Your task to perform on an android device: What's the weather today? Image 0: 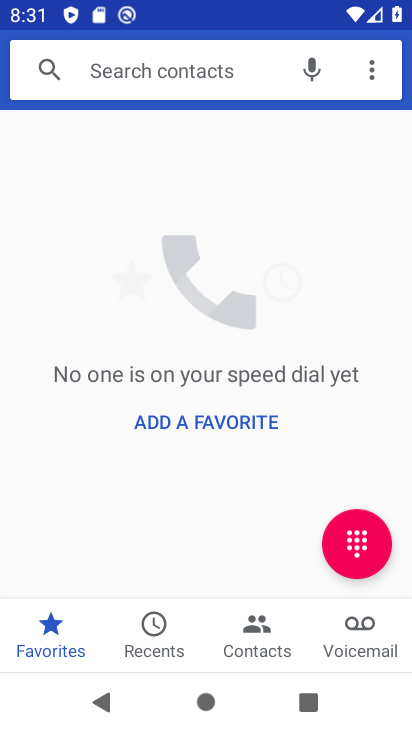
Step 0: press home button
Your task to perform on an android device: What's the weather today? Image 1: 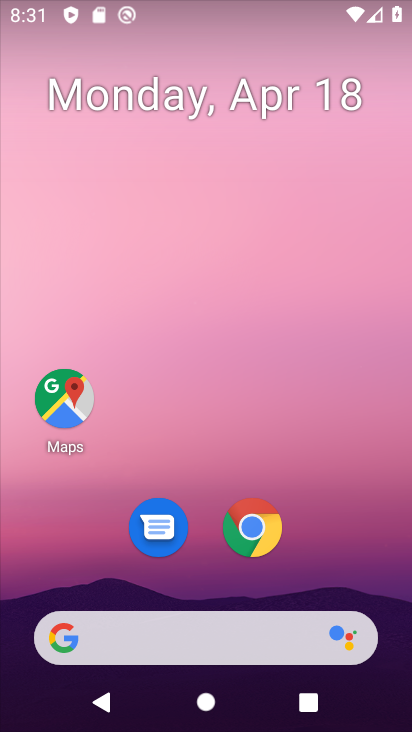
Step 1: click (213, 643)
Your task to perform on an android device: What's the weather today? Image 2: 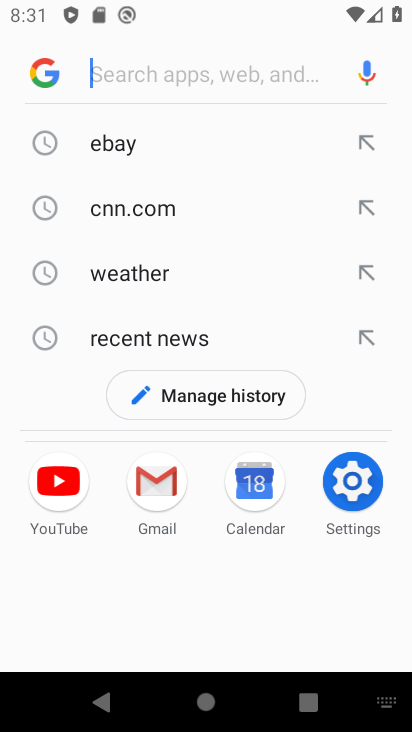
Step 2: type "weather today"
Your task to perform on an android device: What's the weather today? Image 3: 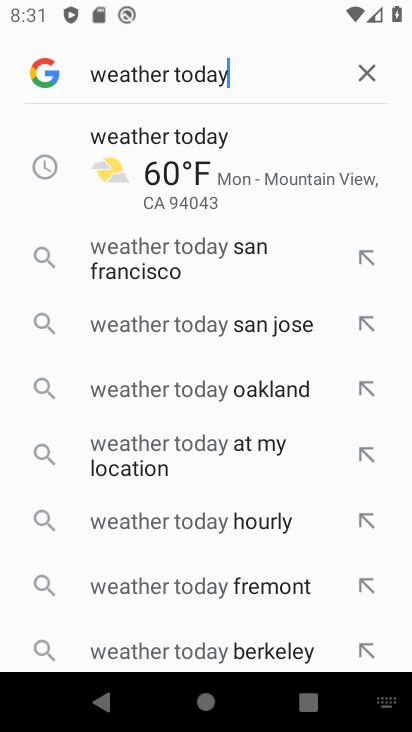
Step 3: click (297, 195)
Your task to perform on an android device: What's the weather today? Image 4: 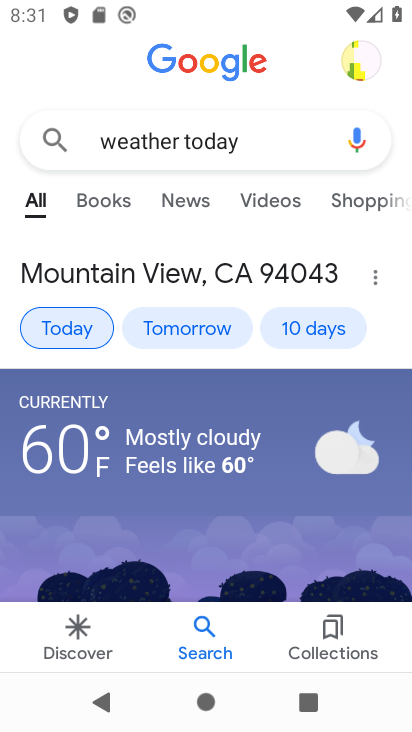
Step 4: task complete